Your task to perform on an android device: Go to settings Image 0: 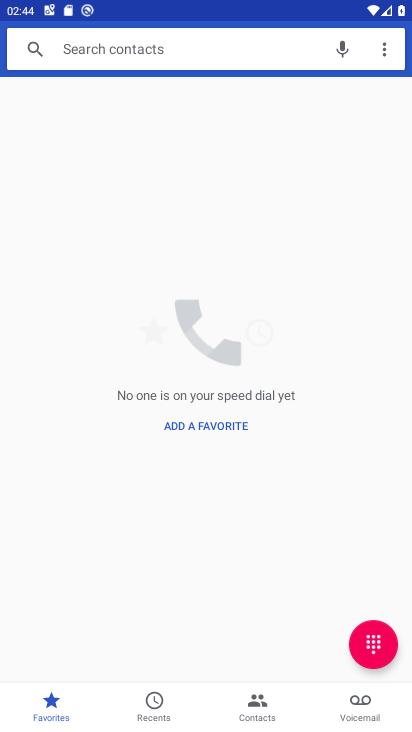
Step 0: press home button
Your task to perform on an android device: Go to settings Image 1: 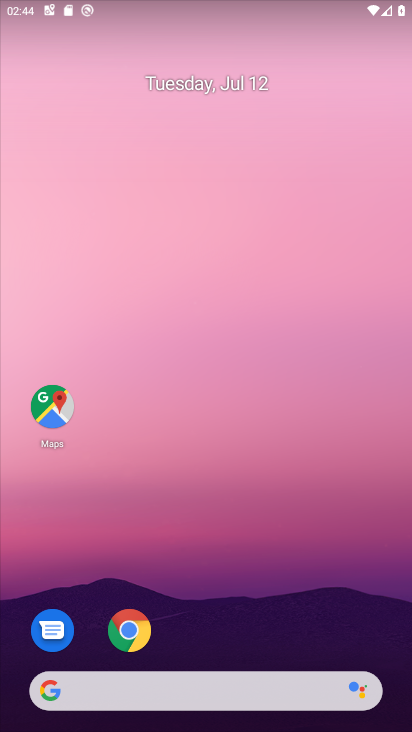
Step 1: drag from (400, 635) to (344, 10)
Your task to perform on an android device: Go to settings Image 2: 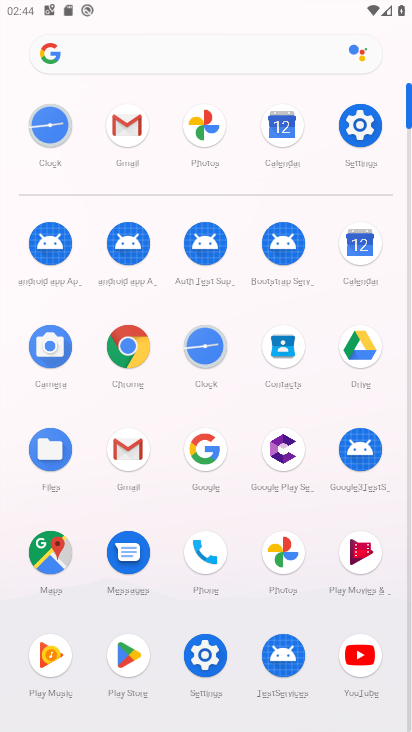
Step 2: click (204, 656)
Your task to perform on an android device: Go to settings Image 3: 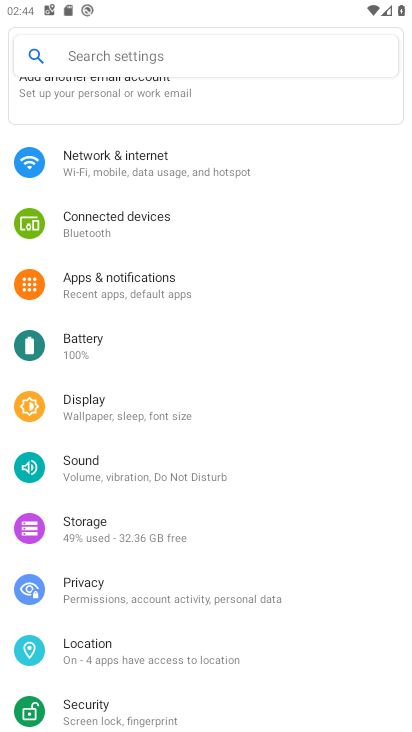
Step 3: task complete